Your task to perform on an android device: Find coffee shops on Maps Image 0: 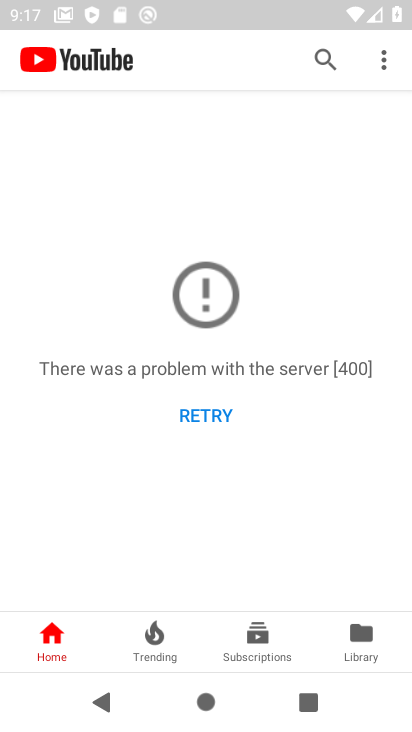
Step 0: press back button
Your task to perform on an android device: Find coffee shops on Maps Image 1: 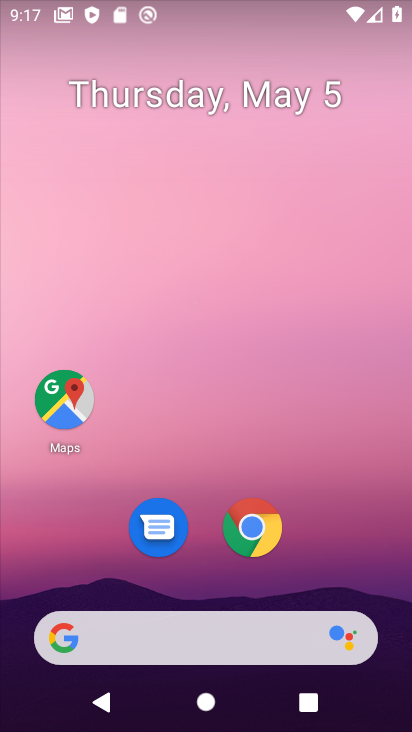
Step 1: click (72, 398)
Your task to perform on an android device: Find coffee shops on Maps Image 2: 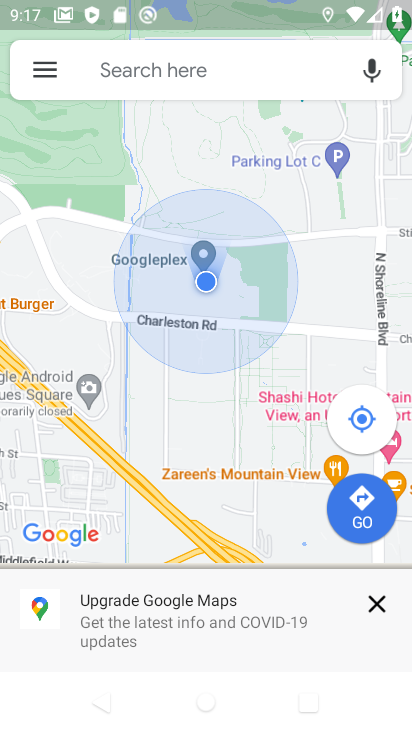
Step 2: click (218, 73)
Your task to perform on an android device: Find coffee shops on Maps Image 3: 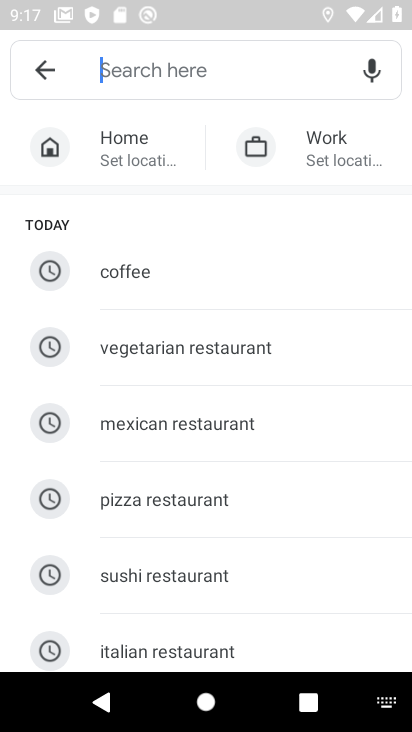
Step 3: type "coffee shops"
Your task to perform on an android device: Find coffee shops on Maps Image 4: 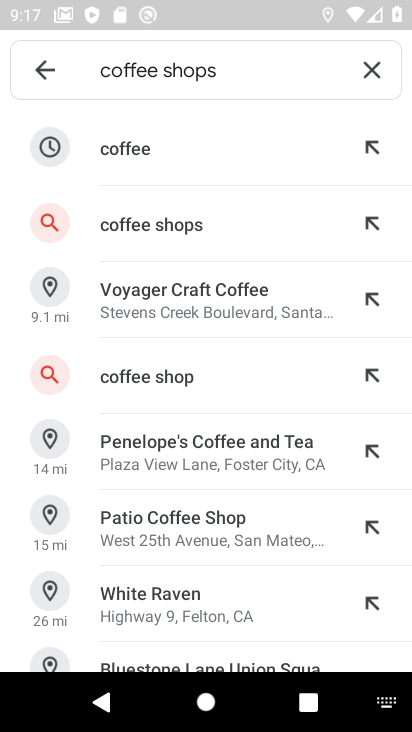
Step 4: task complete